Your task to perform on an android device: Open Google Chrome Image 0: 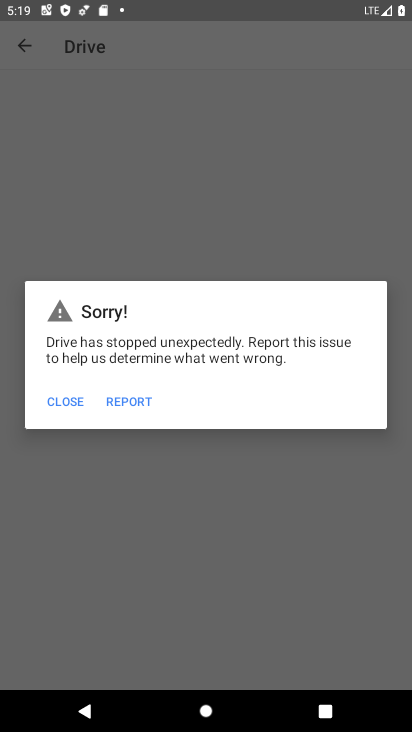
Step 0: press home button
Your task to perform on an android device: Open Google Chrome Image 1: 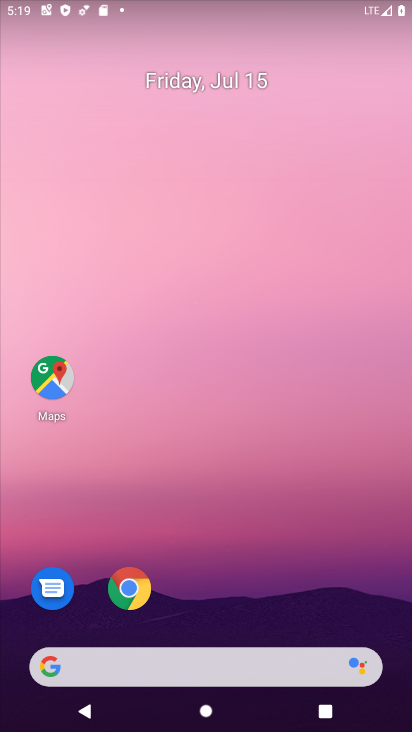
Step 1: drag from (317, 639) to (331, 129)
Your task to perform on an android device: Open Google Chrome Image 2: 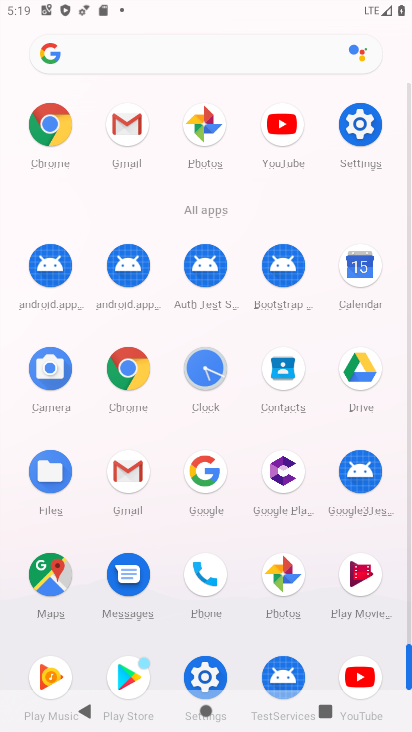
Step 2: click (126, 371)
Your task to perform on an android device: Open Google Chrome Image 3: 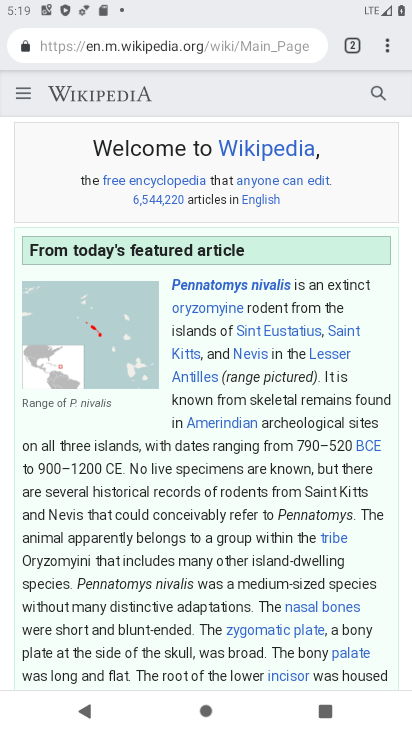
Step 3: click (388, 49)
Your task to perform on an android device: Open Google Chrome Image 4: 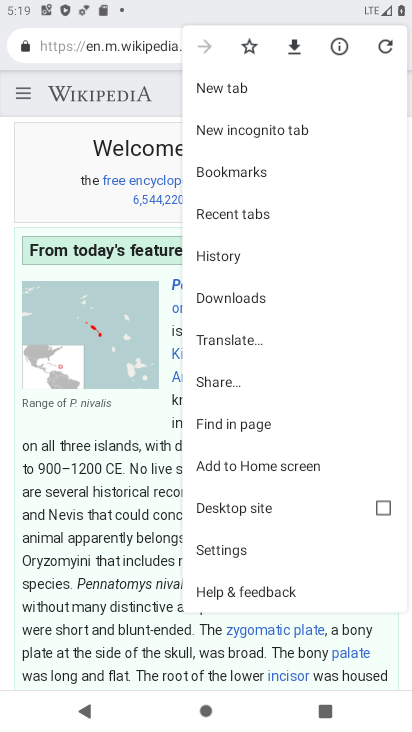
Step 4: click (318, 87)
Your task to perform on an android device: Open Google Chrome Image 5: 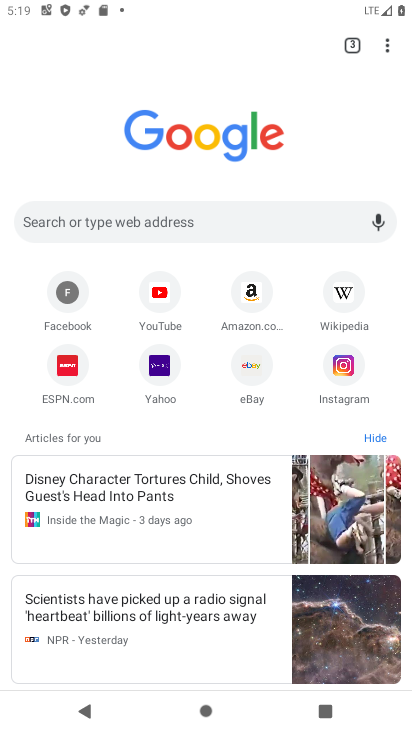
Step 5: task complete